Your task to perform on an android device: turn off notifications settings in the gmail app Image 0: 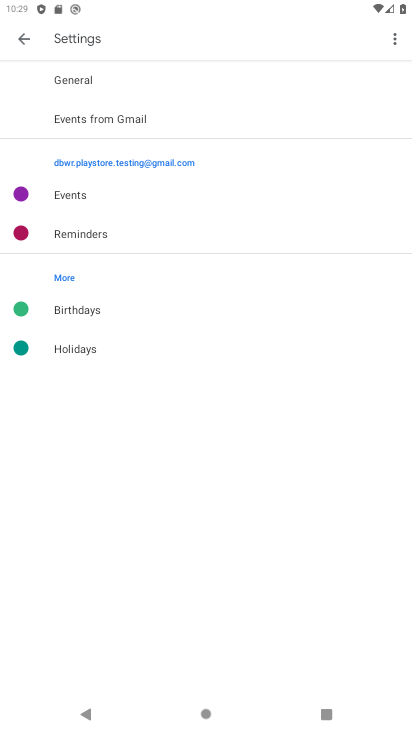
Step 0: press home button
Your task to perform on an android device: turn off notifications settings in the gmail app Image 1: 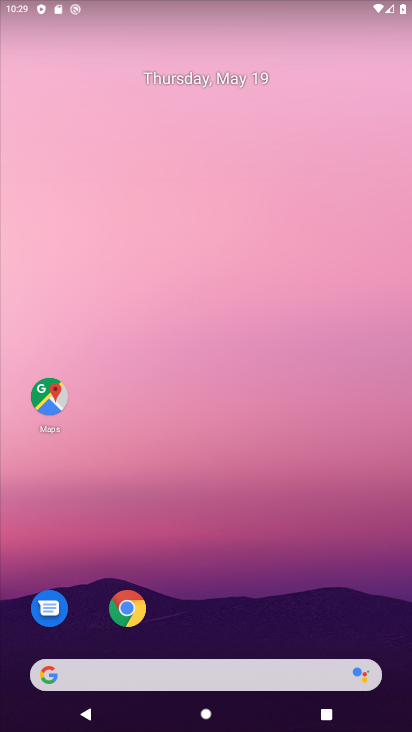
Step 1: drag from (394, 659) to (307, 154)
Your task to perform on an android device: turn off notifications settings in the gmail app Image 2: 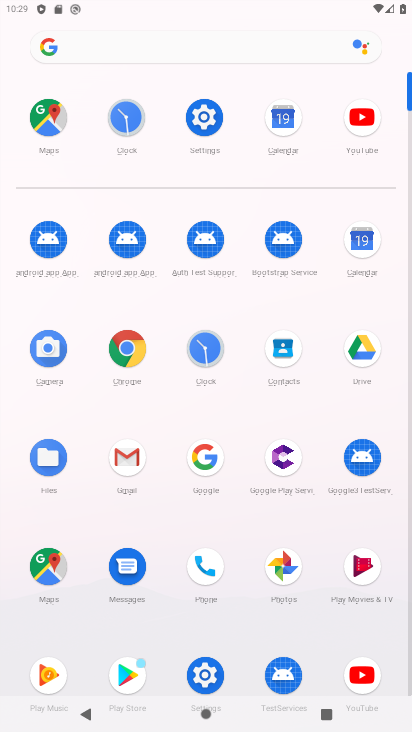
Step 2: click (133, 450)
Your task to perform on an android device: turn off notifications settings in the gmail app Image 3: 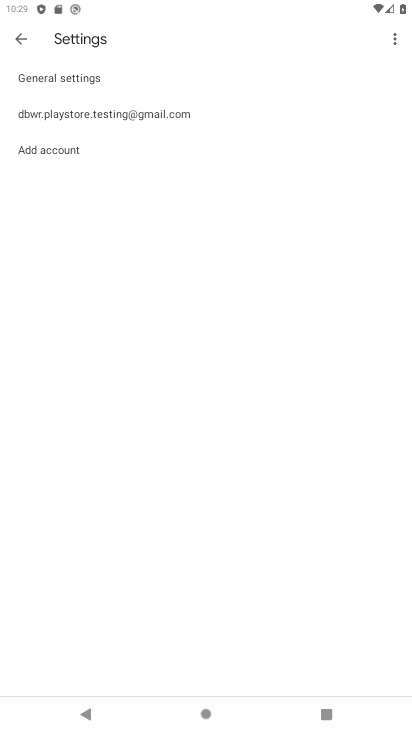
Step 3: click (35, 77)
Your task to perform on an android device: turn off notifications settings in the gmail app Image 4: 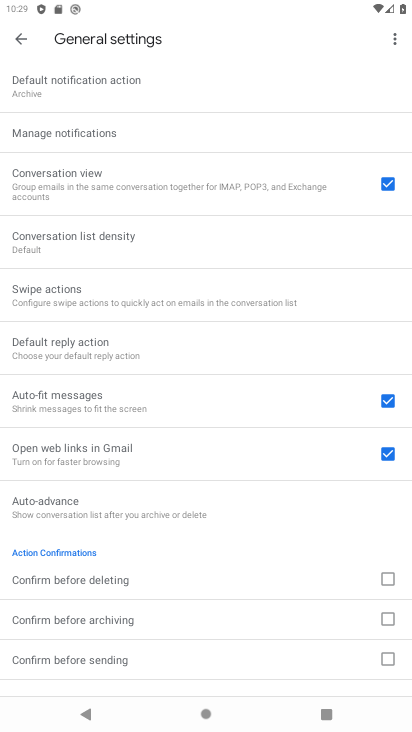
Step 4: click (64, 133)
Your task to perform on an android device: turn off notifications settings in the gmail app Image 5: 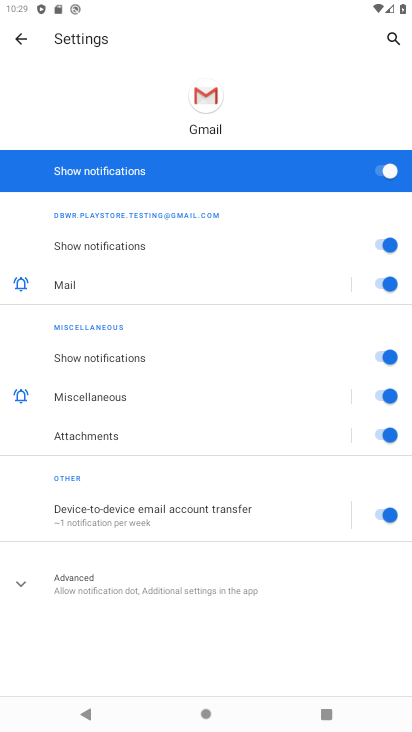
Step 5: click (381, 169)
Your task to perform on an android device: turn off notifications settings in the gmail app Image 6: 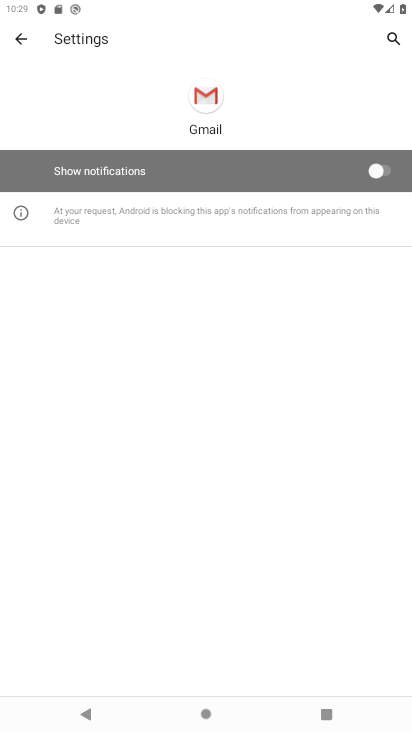
Step 6: task complete